Your task to perform on an android device: Where can I buy a nice beach umbrella? Image 0: 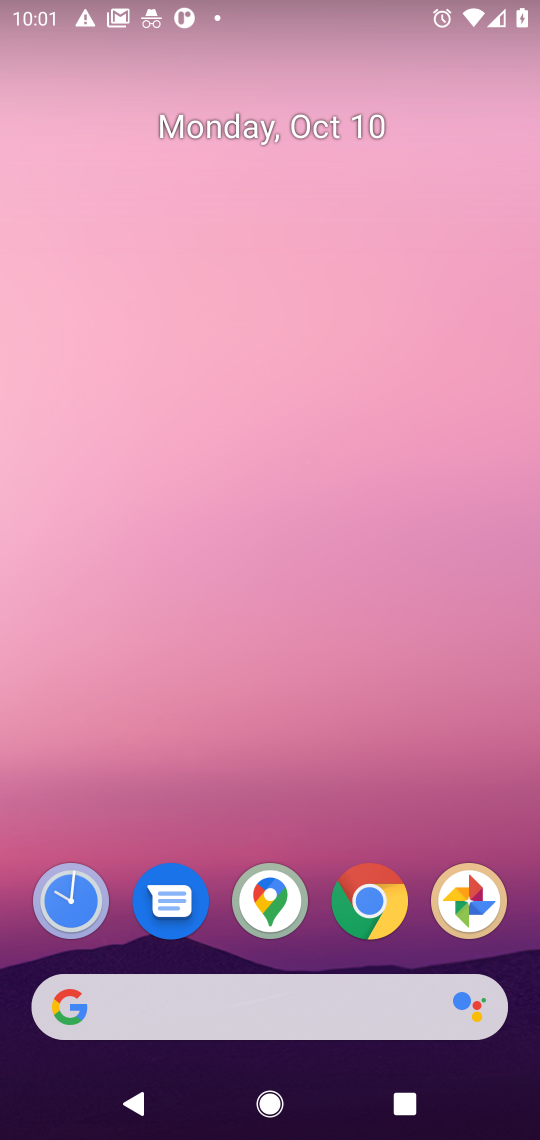
Step 0: press home button
Your task to perform on an android device: Where can I buy a nice beach umbrella? Image 1: 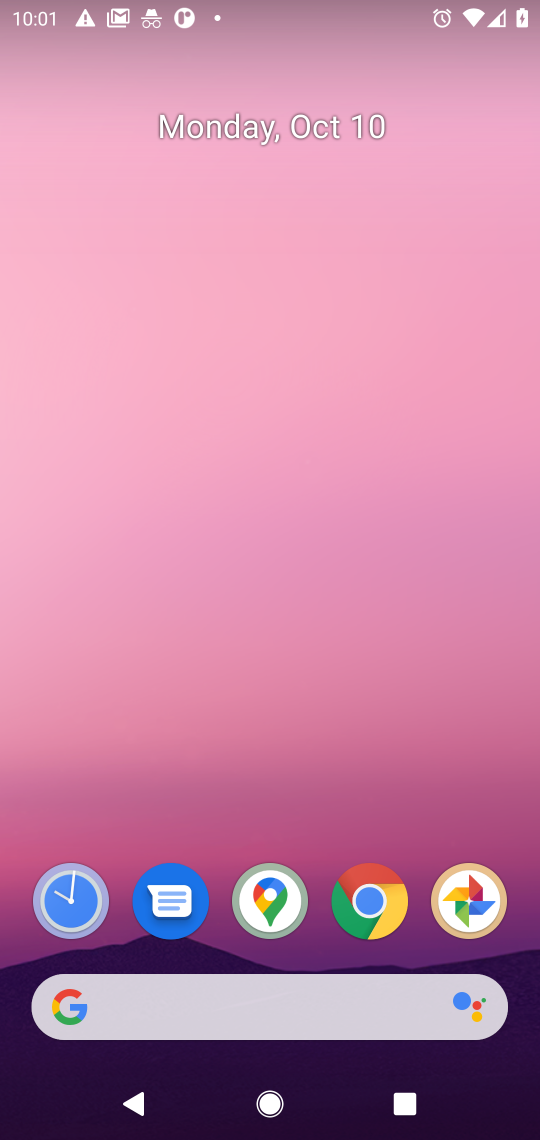
Step 1: click (320, 997)
Your task to perform on an android device: Where can I buy a nice beach umbrella? Image 2: 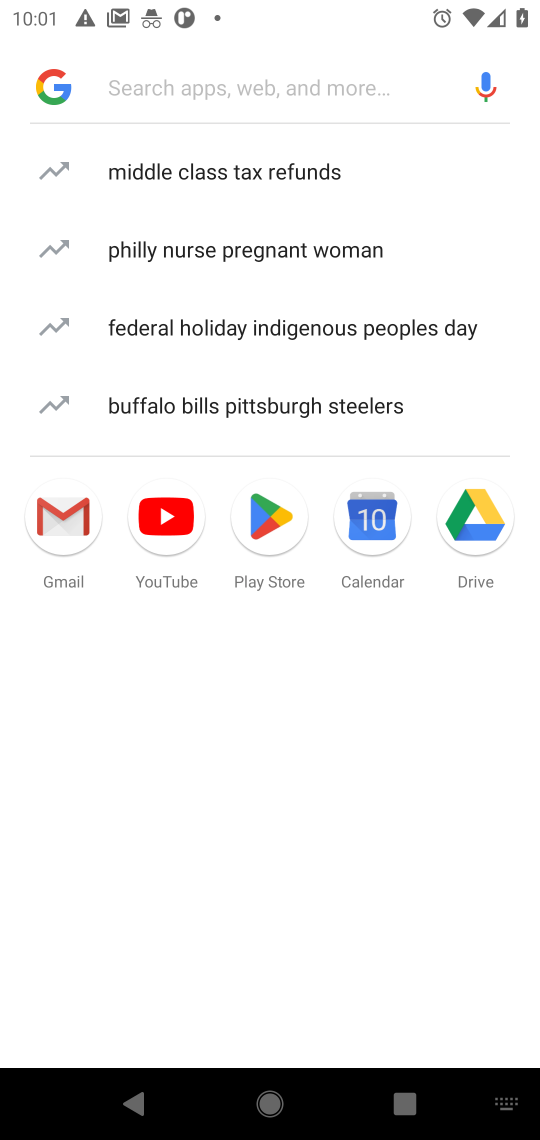
Step 2: type "Where can I buy a nice beach umbrella"
Your task to perform on an android device: Where can I buy a nice beach umbrella? Image 3: 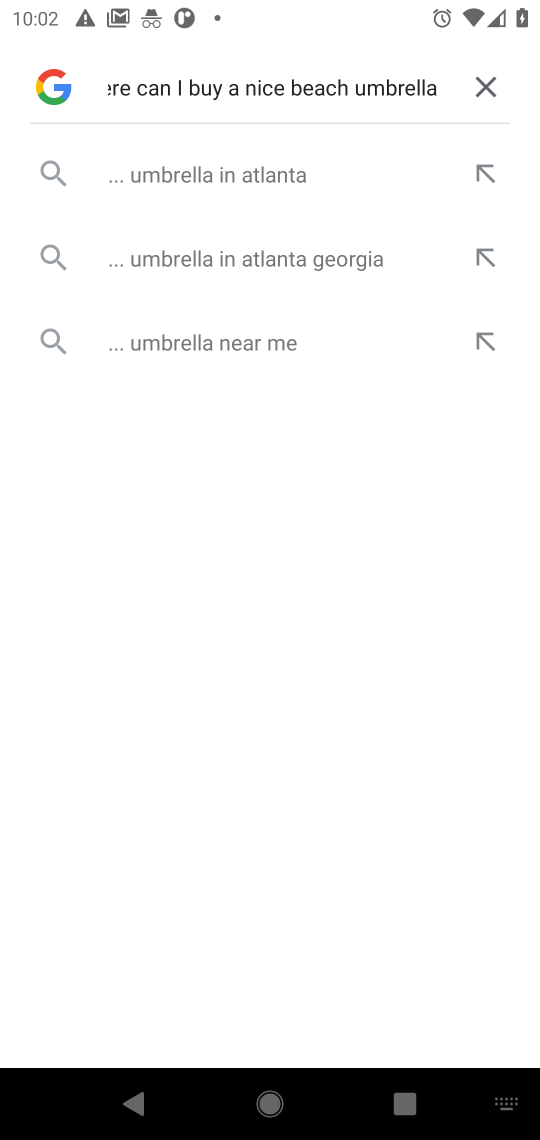
Step 3: press enter
Your task to perform on an android device: Where can I buy a nice beach umbrella? Image 4: 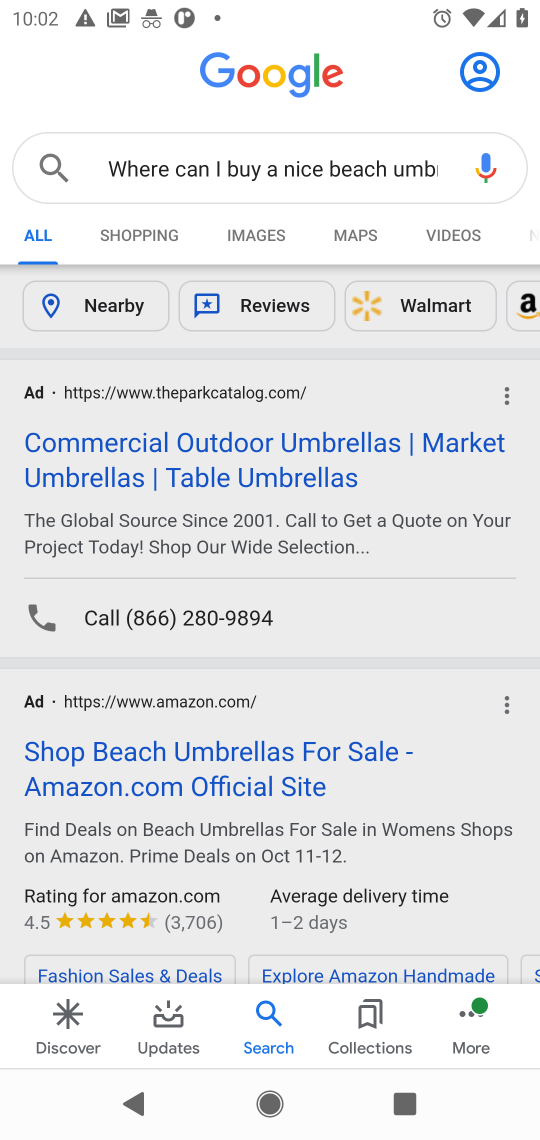
Step 4: click (229, 455)
Your task to perform on an android device: Where can I buy a nice beach umbrella? Image 5: 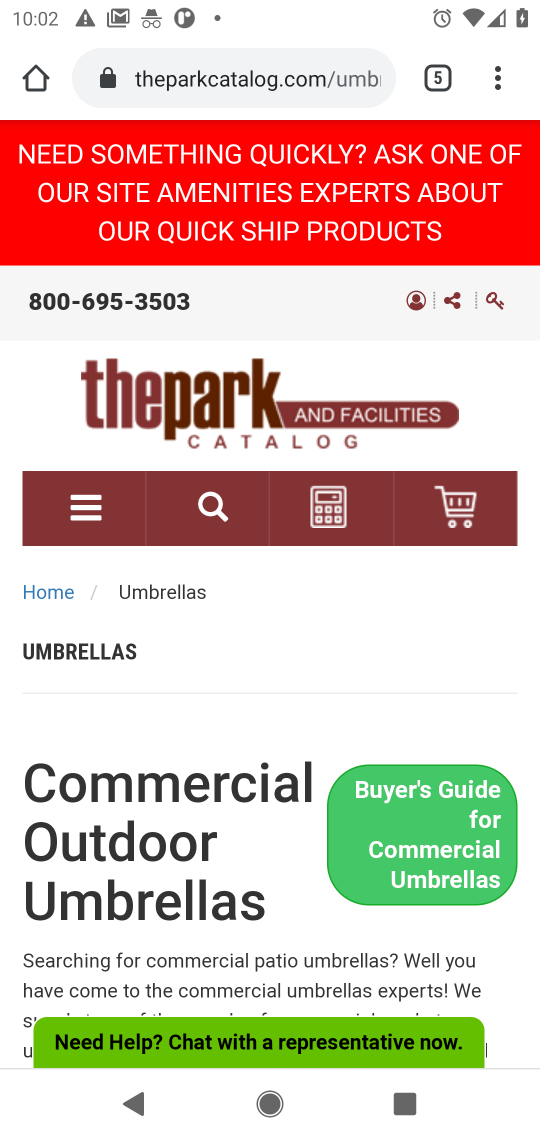
Step 5: drag from (245, 860) to (248, 558)
Your task to perform on an android device: Where can I buy a nice beach umbrella? Image 6: 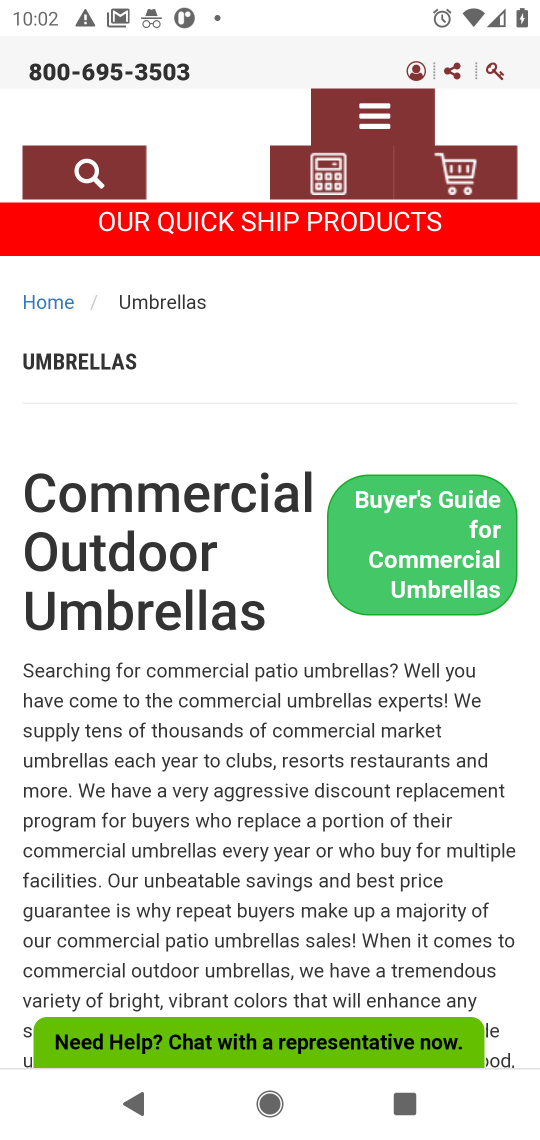
Step 6: drag from (204, 813) to (233, 453)
Your task to perform on an android device: Where can I buy a nice beach umbrella? Image 7: 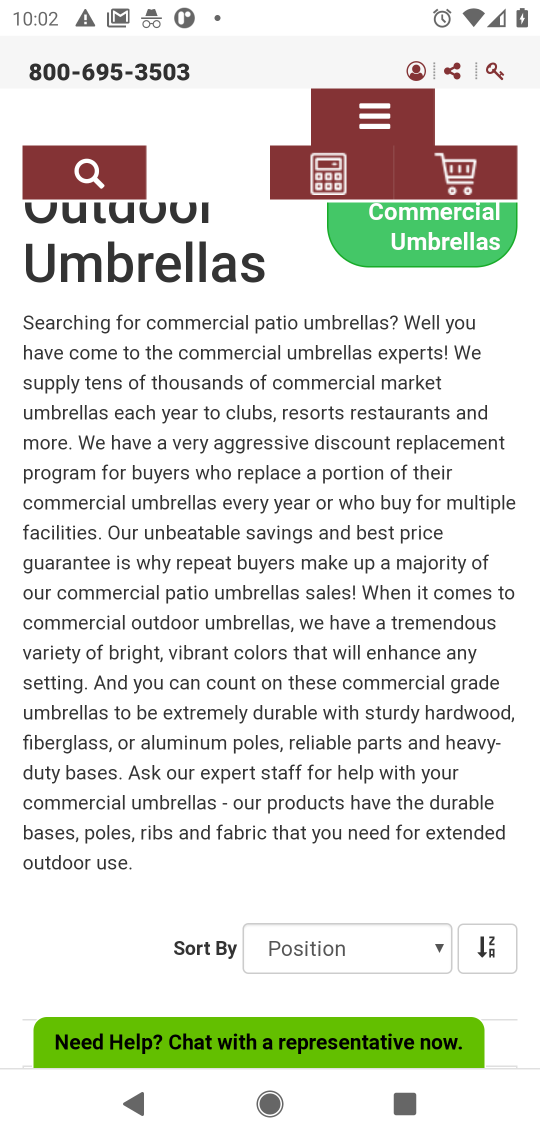
Step 7: drag from (263, 755) to (314, 397)
Your task to perform on an android device: Where can I buy a nice beach umbrella? Image 8: 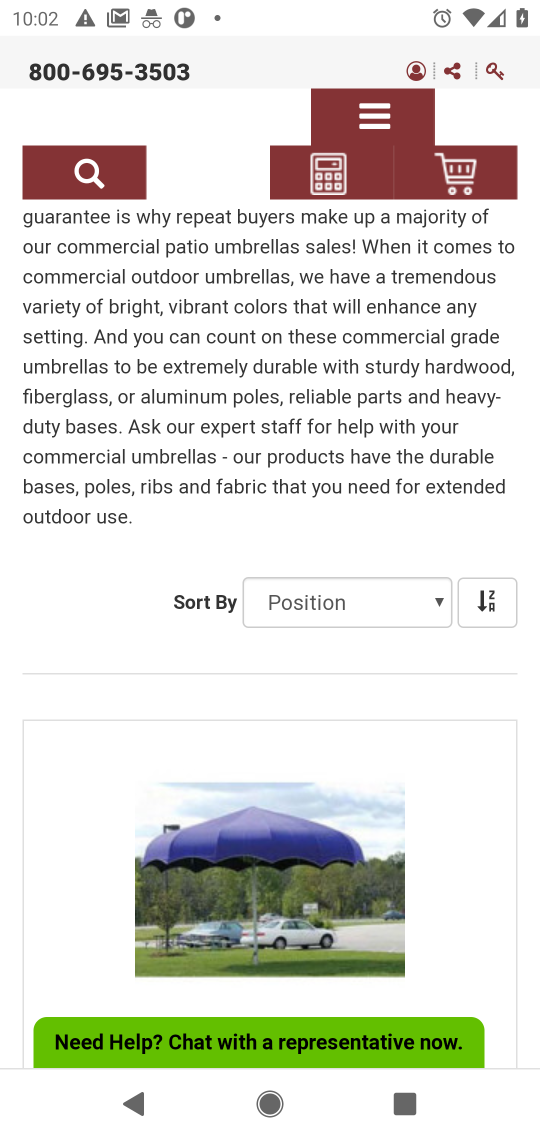
Step 8: press back button
Your task to perform on an android device: Where can I buy a nice beach umbrella? Image 9: 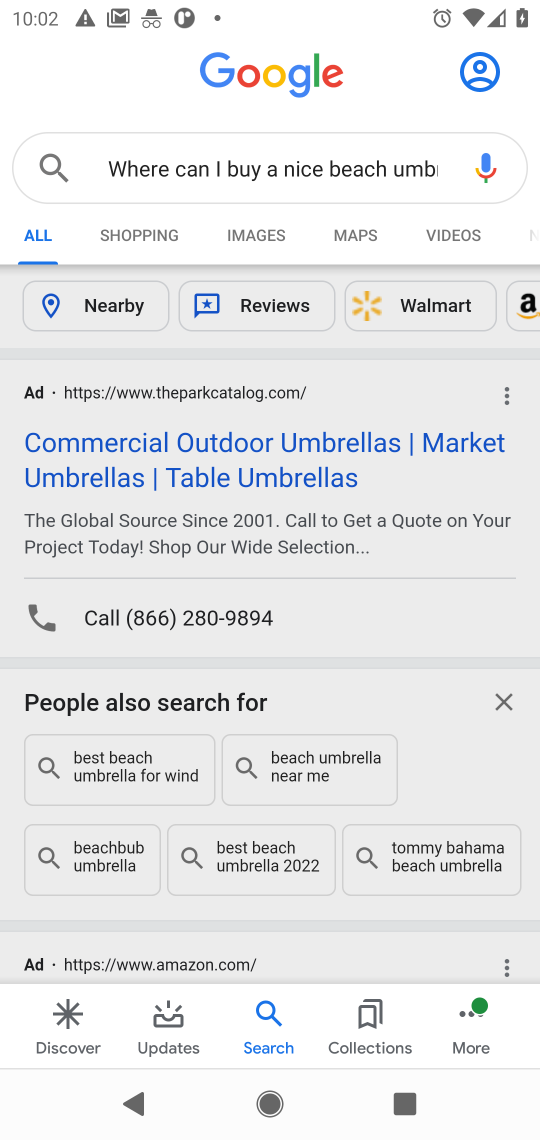
Step 9: drag from (364, 819) to (409, 444)
Your task to perform on an android device: Where can I buy a nice beach umbrella? Image 10: 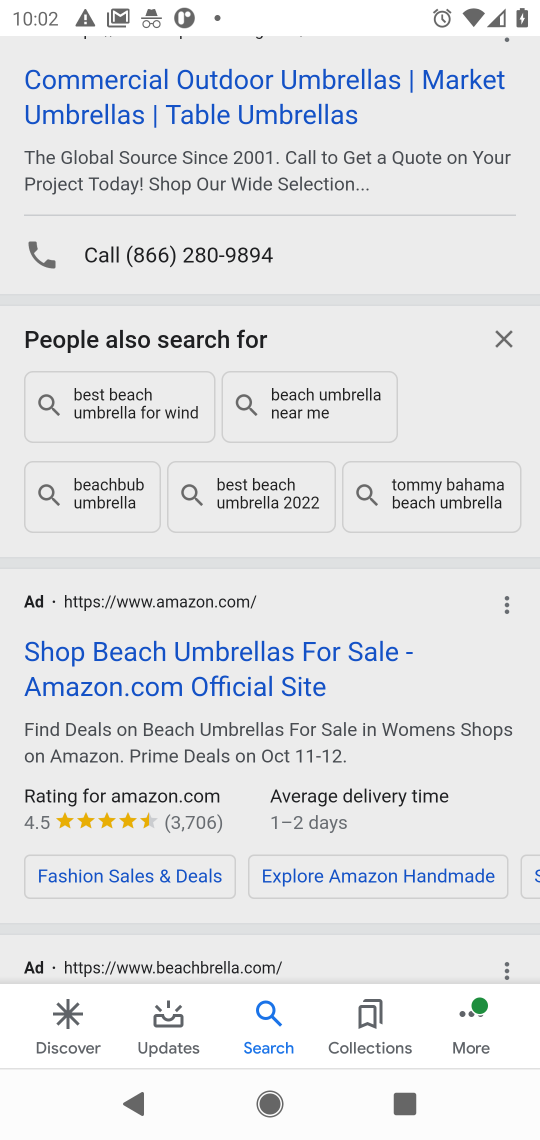
Step 10: click (302, 671)
Your task to perform on an android device: Where can I buy a nice beach umbrella? Image 11: 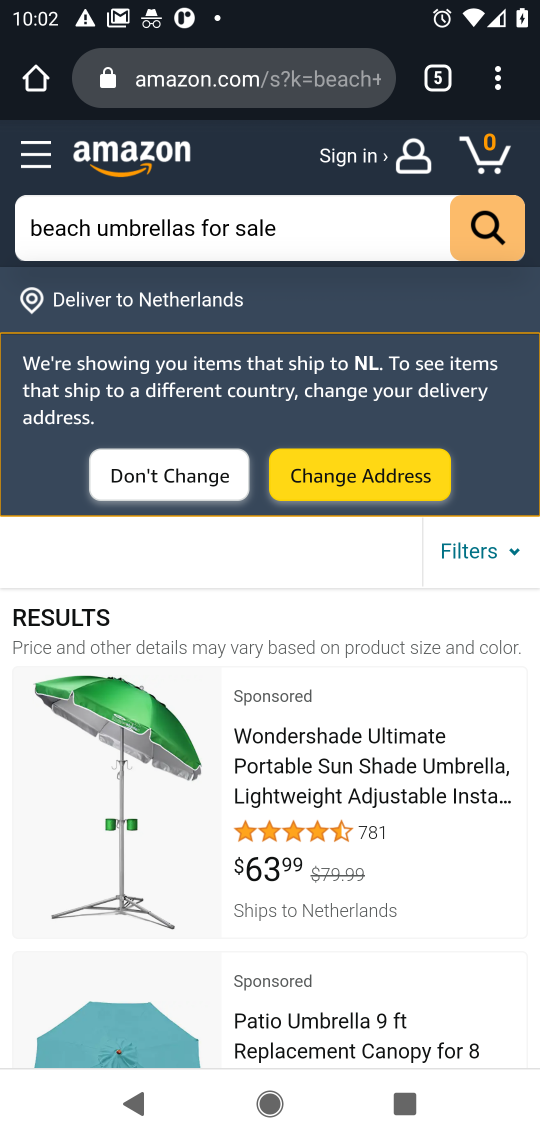
Step 11: task complete